Your task to perform on an android device: Go to location settings Image 0: 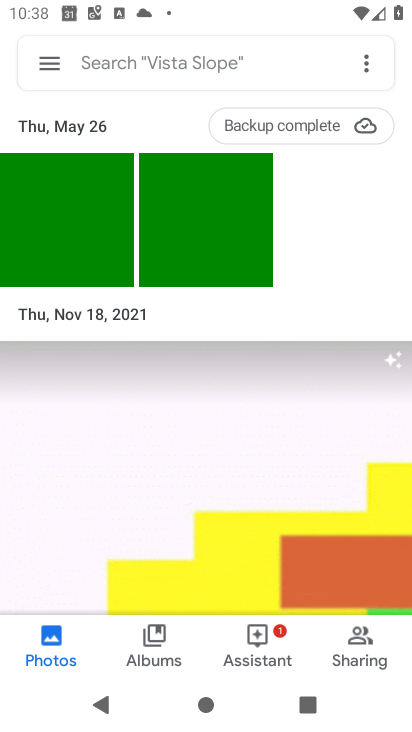
Step 0: press home button
Your task to perform on an android device: Go to location settings Image 1: 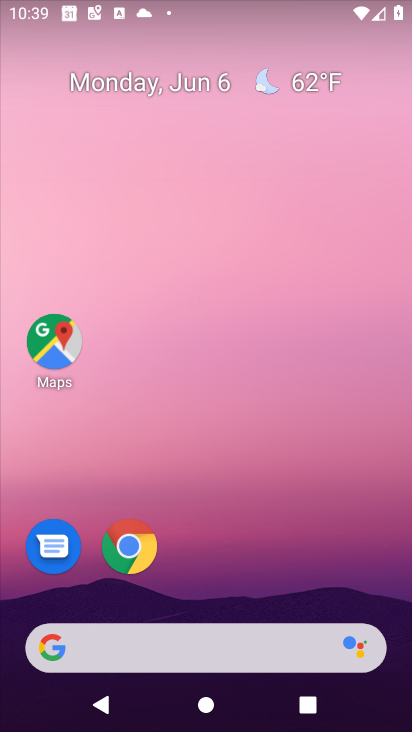
Step 1: drag from (395, 626) to (327, 126)
Your task to perform on an android device: Go to location settings Image 2: 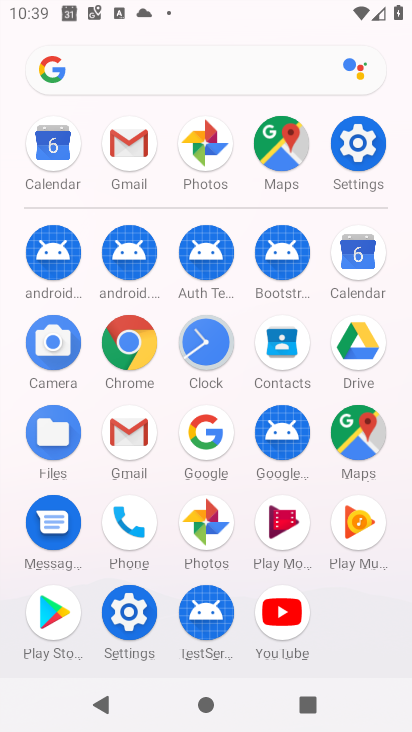
Step 2: click (128, 610)
Your task to perform on an android device: Go to location settings Image 3: 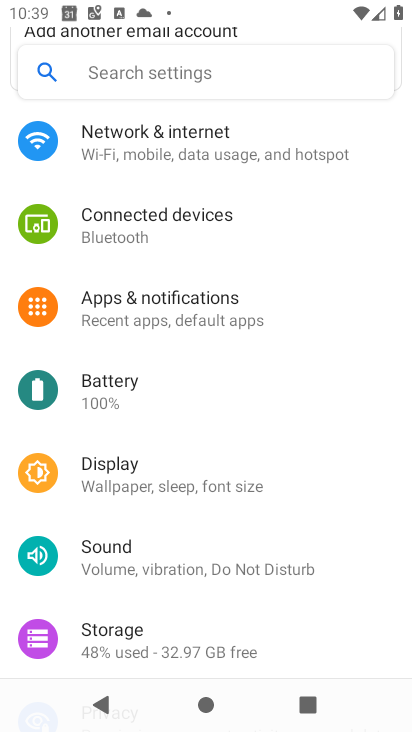
Step 3: drag from (346, 596) to (322, 161)
Your task to perform on an android device: Go to location settings Image 4: 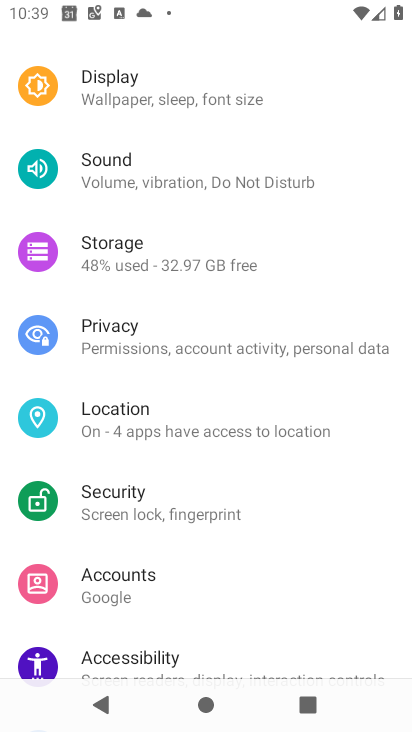
Step 4: click (105, 410)
Your task to perform on an android device: Go to location settings Image 5: 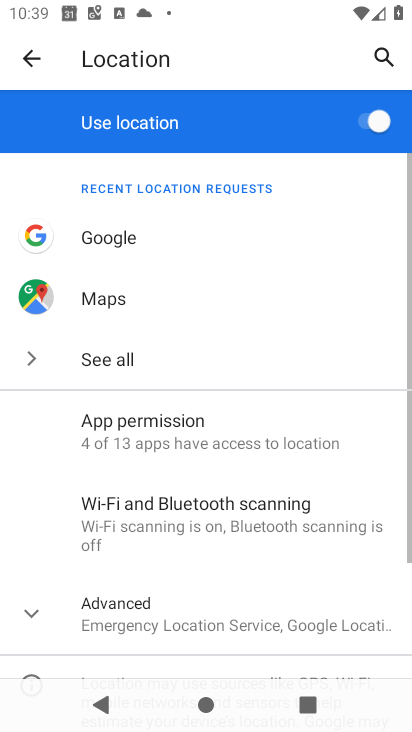
Step 5: drag from (261, 650) to (261, 319)
Your task to perform on an android device: Go to location settings Image 6: 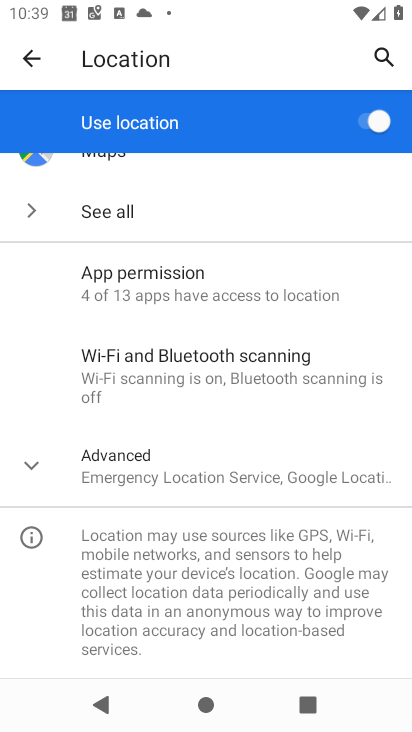
Step 6: click (37, 467)
Your task to perform on an android device: Go to location settings Image 7: 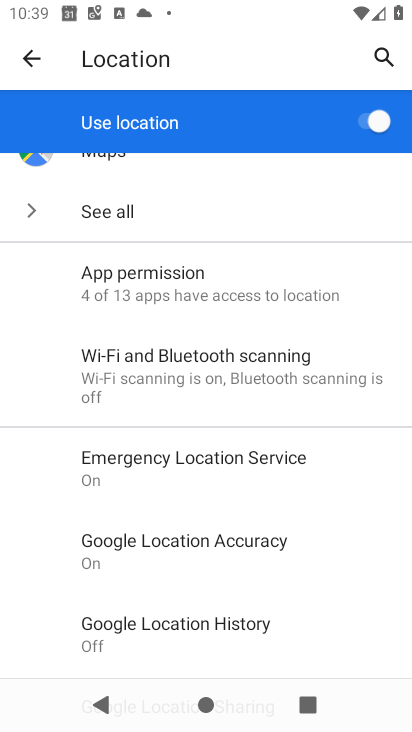
Step 7: task complete